Your task to perform on an android device: Open Youtube and go to the subscriptions tab Image 0: 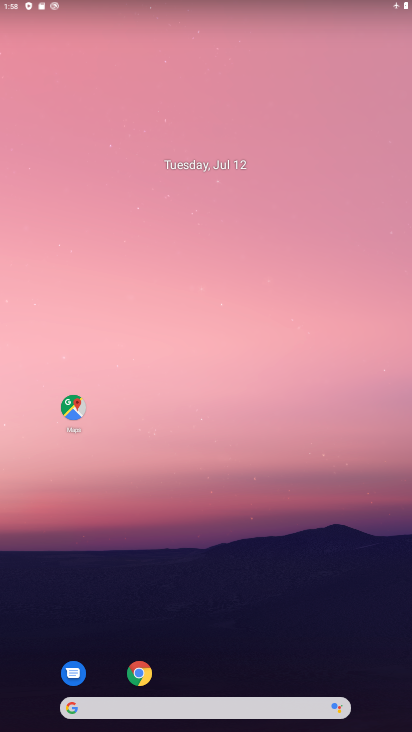
Step 0: drag from (145, 591) to (190, 224)
Your task to perform on an android device: Open Youtube and go to the subscriptions tab Image 1: 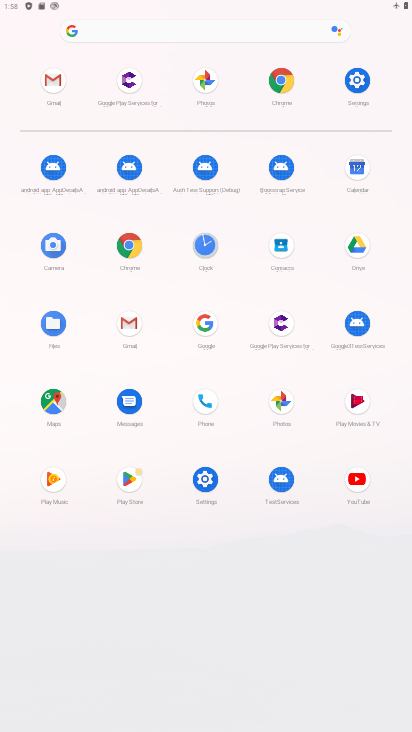
Step 1: click (349, 472)
Your task to perform on an android device: Open Youtube and go to the subscriptions tab Image 2: 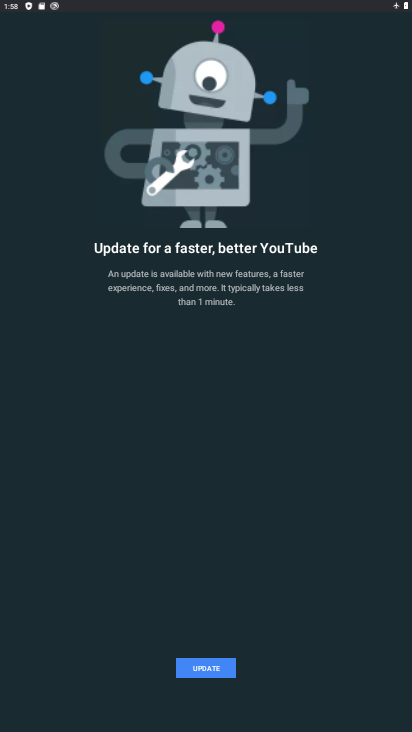
Step 2: task complete